Your task to perform on an android device: Is it going to rain today? Image 0: 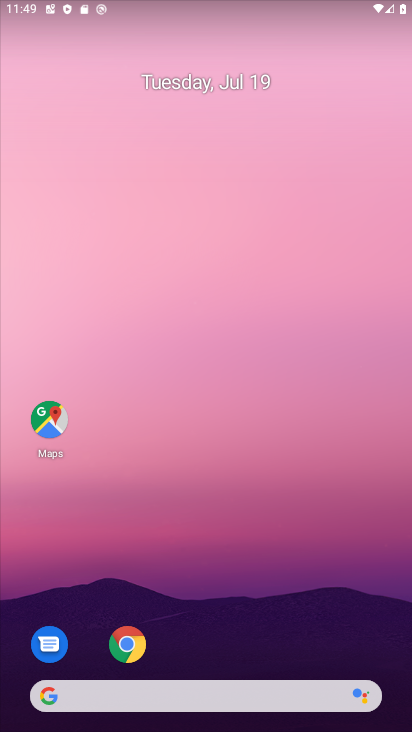
Step 0: press home button
Your task to perform on an android device: Is it going to rain today? Image 1: 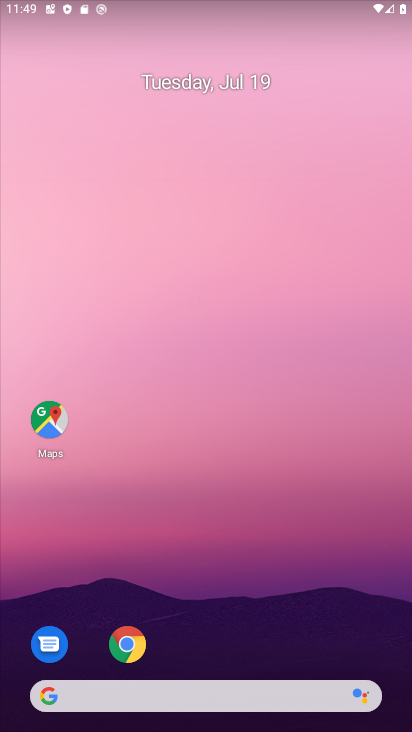
Step 1: drag from (336, 661) to (320, 237)
Your task to perform on an android device: Is it going to rain today? Image 2: 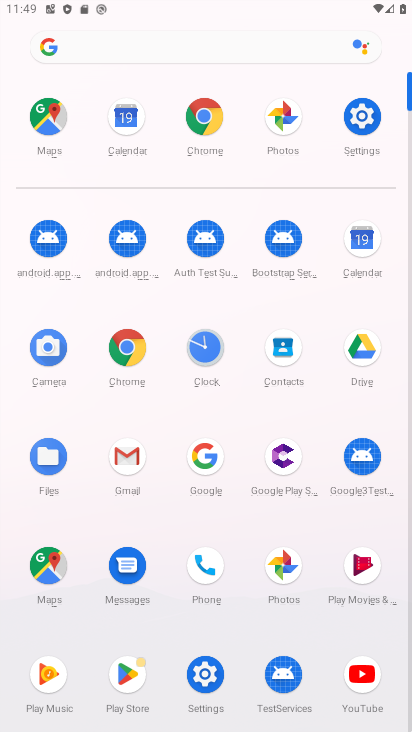
Step 2: click (222, 130)
Your task to perform on an android device: Is it going to rain today? Image 3: 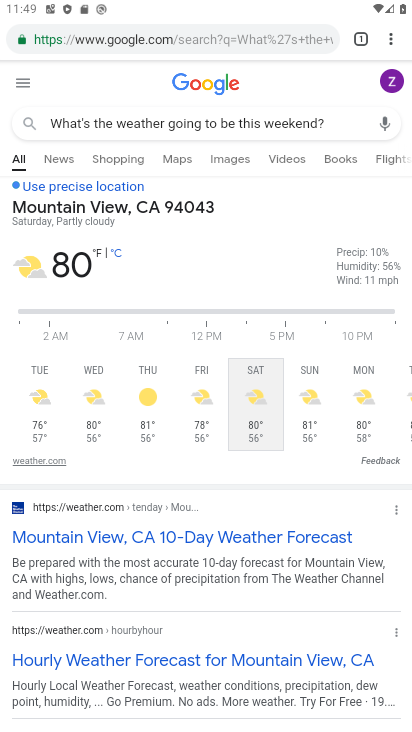
Step 3: click (257, 43)
Your task to perform on an android device: Is it going to rain today? Image 4: 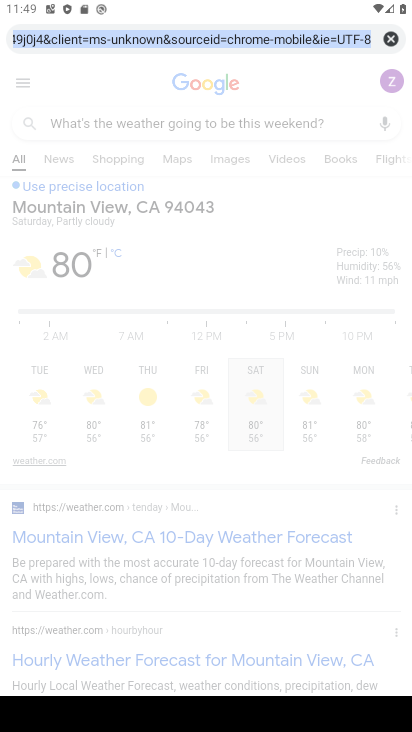
Step 4: type "Is it going to rain today?"
Your task to perform on an android device: Is it going to rain today? Image 5: 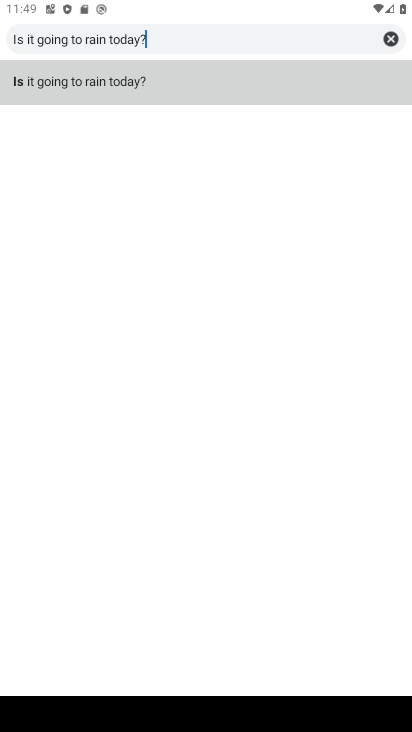
Step 5: type ""
Your task to perform on an android device: Is it going to rain today? Image 6: 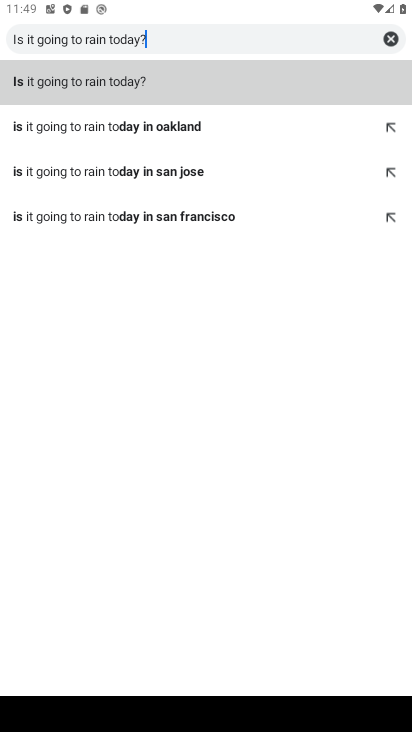
Step 6: click (187, 67)
Your task to perform on an android device: Is it going to rain today? Image 7: 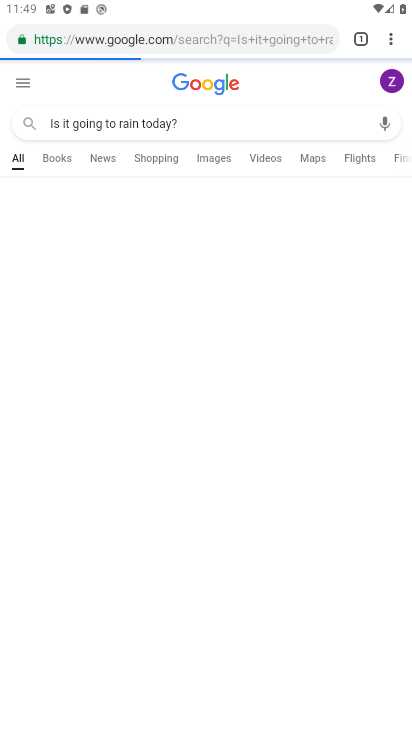
Step 7: task complete